Your task to perform on an android device: turn on airplane mode Image 0: 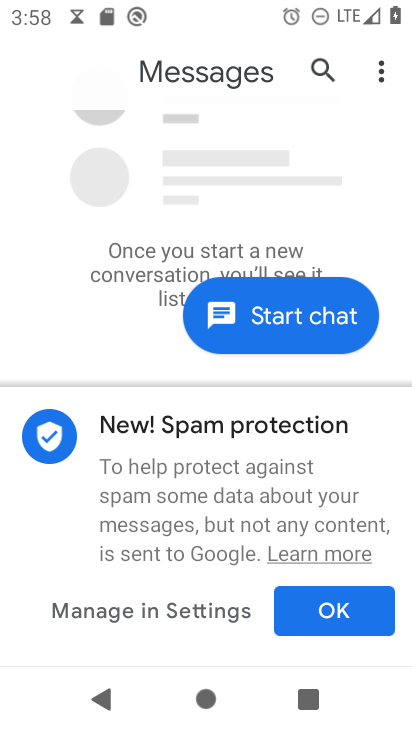
Step 0: press home button
Your task to perform on an android device: turn on airplane mode Image 1: 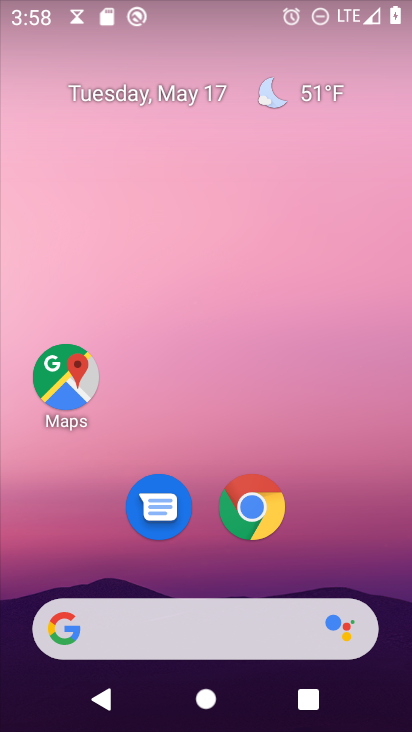
Step 1: drag from (193, 495) to (183, 0)
Your task to perform on an android device: turn on airplane mode Image 2: 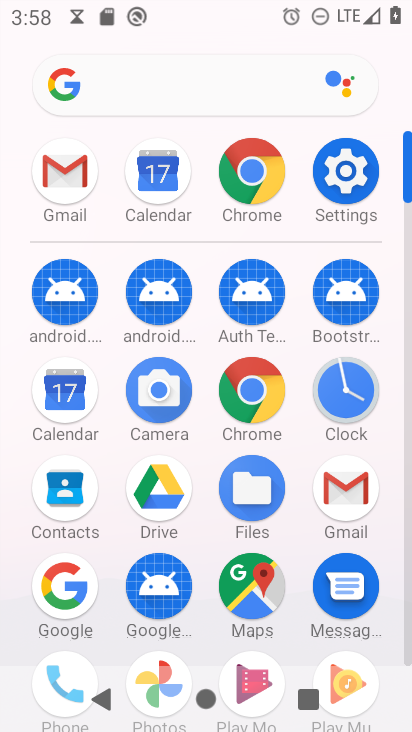
Step 2: click (339, 167)
Your task to perform on an android device: turn on airplane mode Image 3: 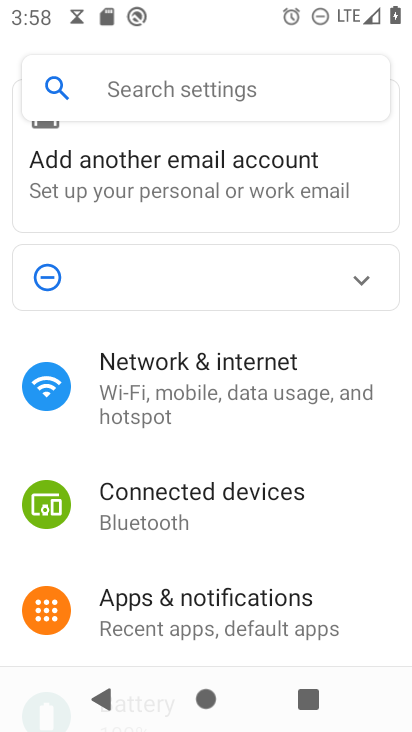
Step 3: click (170, 374)
Your task to perform on an android device: turn on airplane mode Image 4: 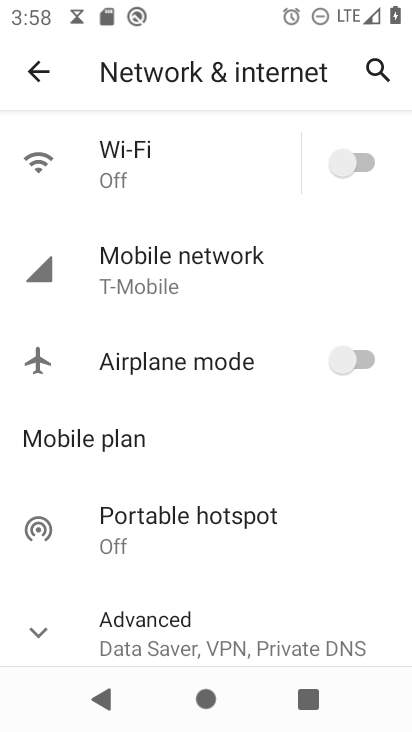
Step 4: click (341, 363)
Your task to perform on an android device: turn on airplane mode Image 5: 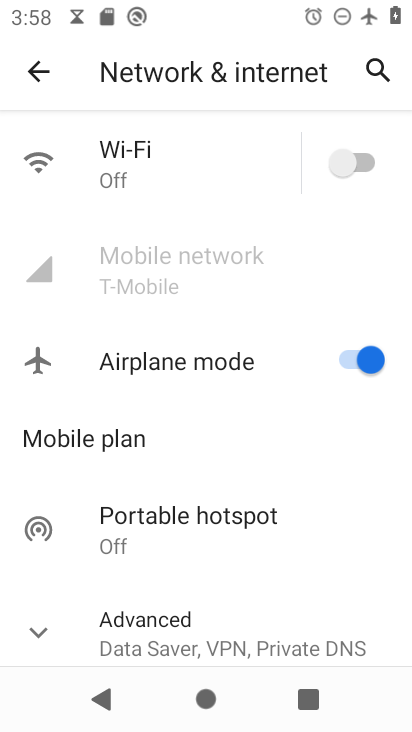
Step 5: task complete